Your task to perform on an android device: What is the recent news? Image 0: 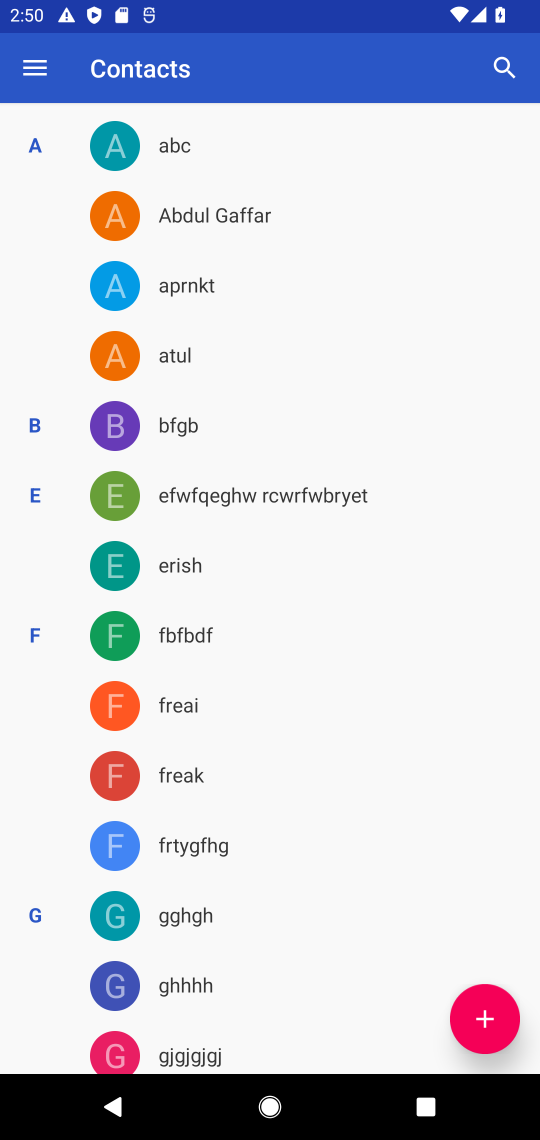
Step 0: press home button
Your task to perform on an android device: What is the recent news? Image 1: 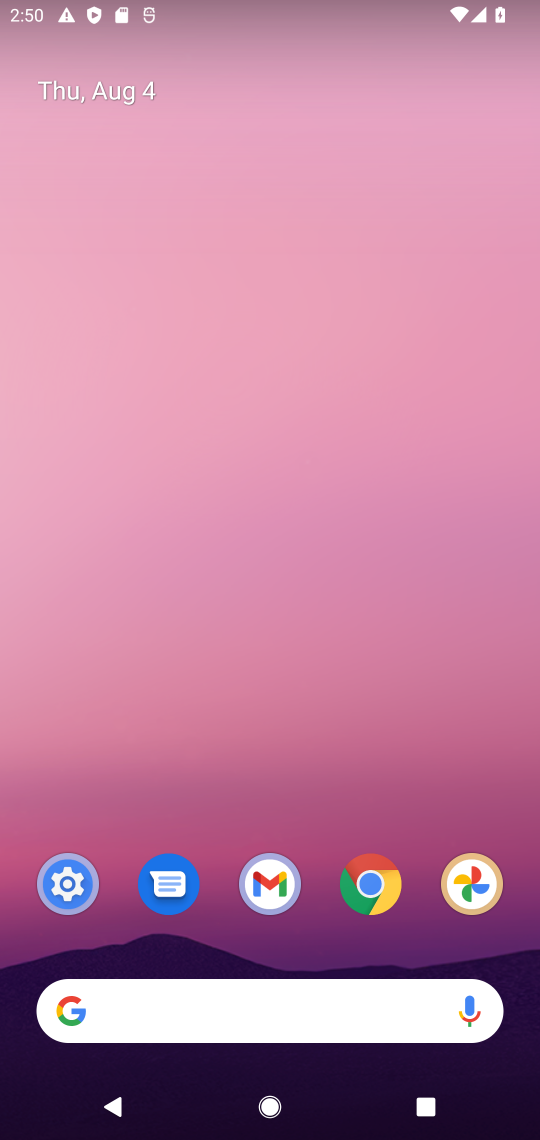
Step 1: drag from (414, 747) to (434, 282)
Your task to perform on an android device: What is the recent news? Image 2: 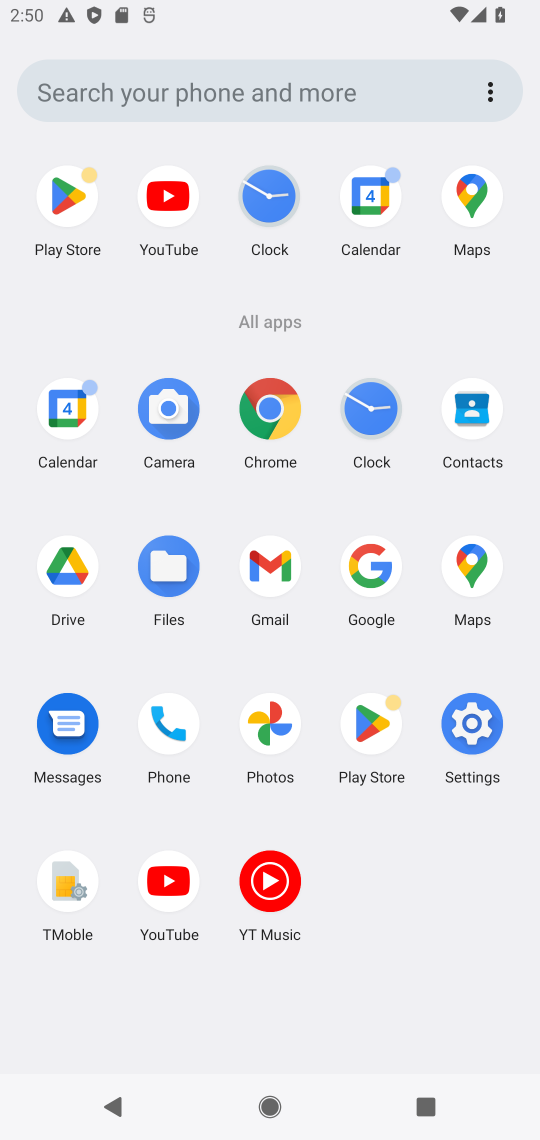
Step 2: press home button
Your task to perform on an android device: What is the recent news? Image 3: 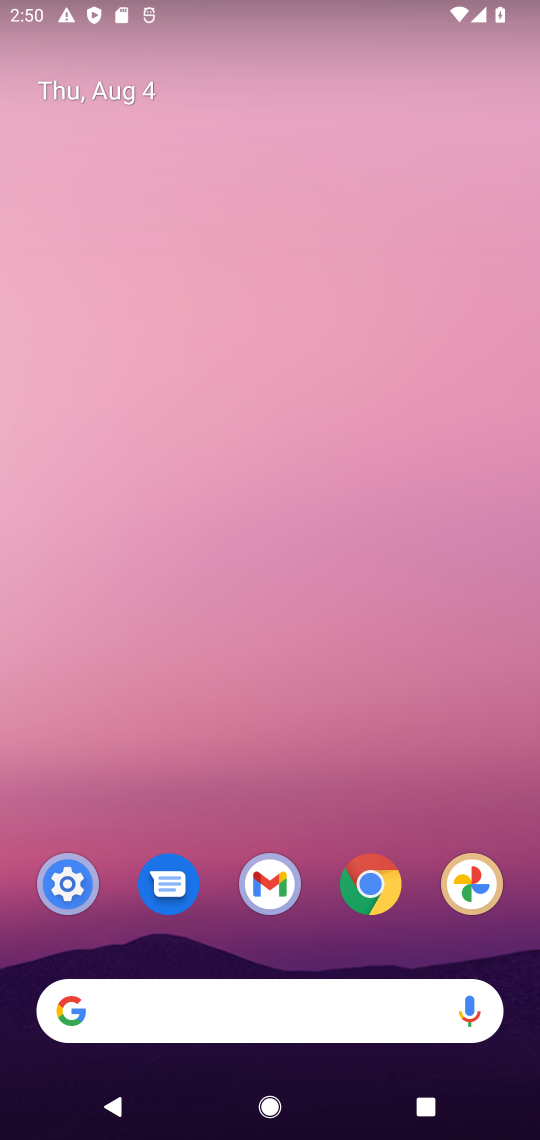
Step 3: drag from (170, 418) to (507, 518)
Your task to perform on an android device: What is the recent news? Image 4: 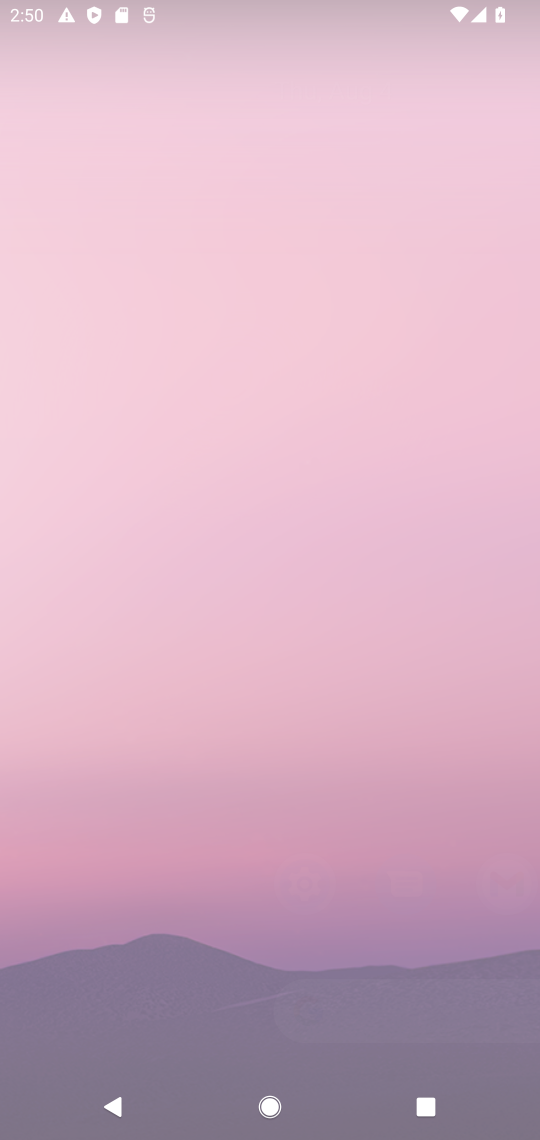
Step 4: drag from (257, 525) to (536, 524)
Your task to perform on an android device: What is the recent news? Image 5: 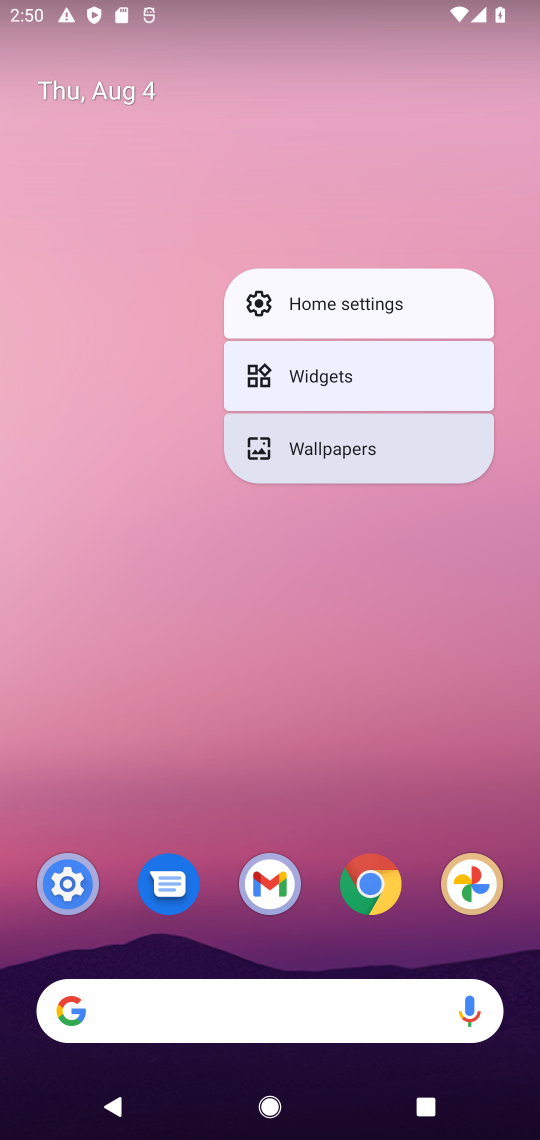
Step 5: click (113, 491)
Your task to perform on an android device: What is the recent news? Image 6: 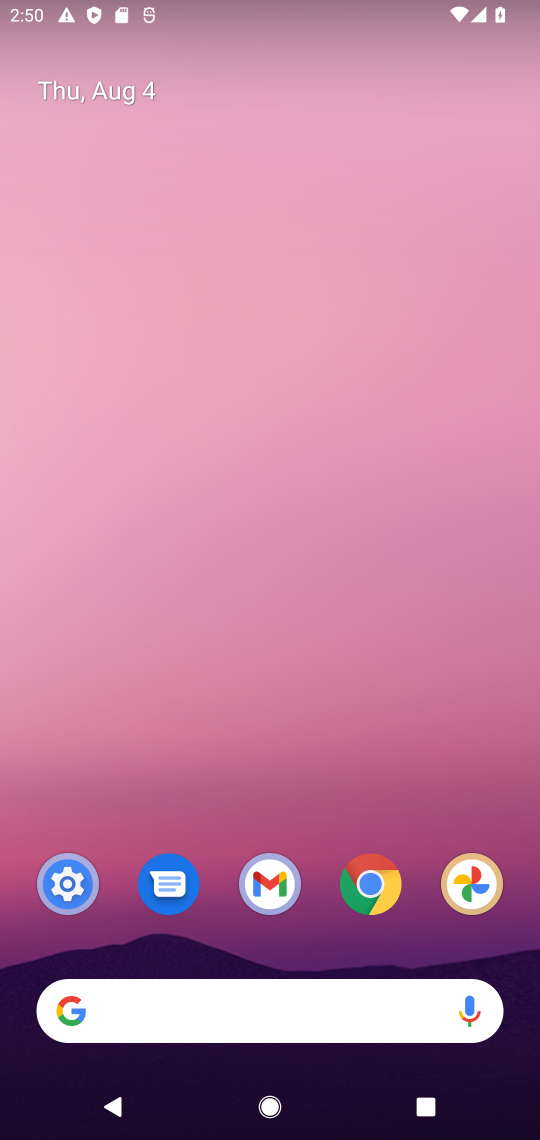
Step 6: task complete